Your task to perform on an android device: set the stopwatch Image 0: 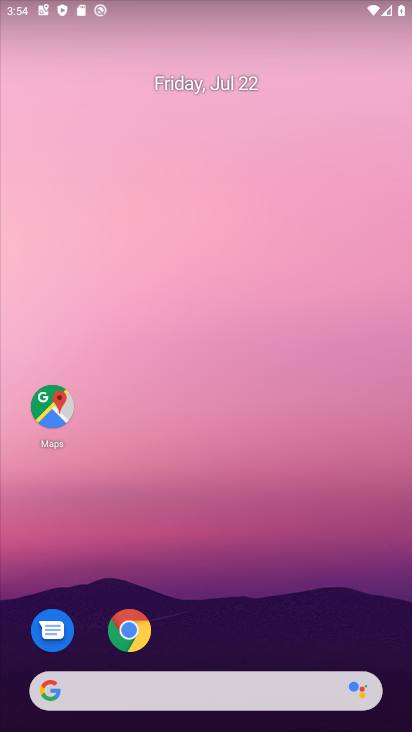
Step 0: drag from (228, 622) to (297, 17)
Your task to perform on an android device: set the stopwatch Image 1: 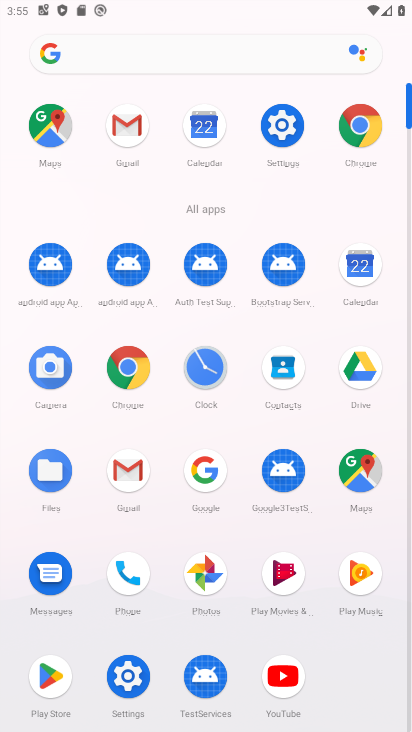
Step 1: click (208, 375)
Your task to perform on an android device: set the stopwatch Image 2: 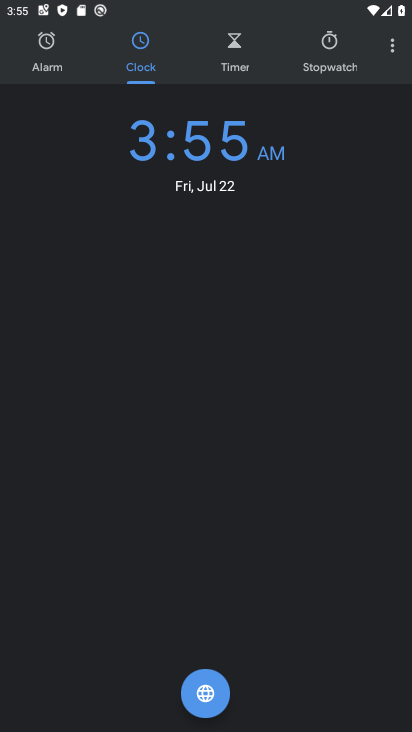
Step 2: click (332, 59)
Your task to perform on an android device: set the stopwatch Image 3: 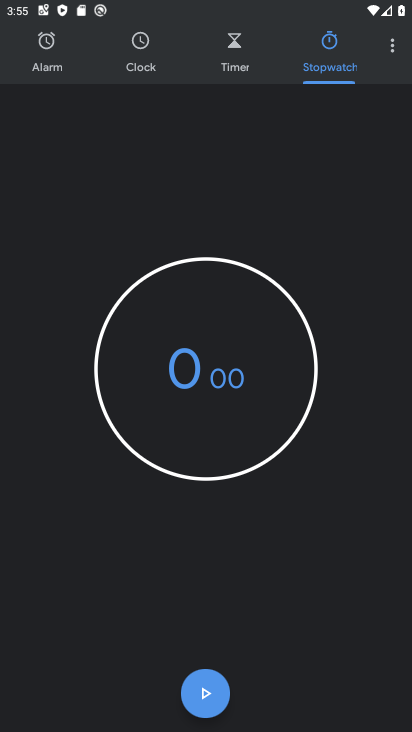
Step 3: click (222, 694)
Your task to perform on an android device: set the stopwatch Image 4: 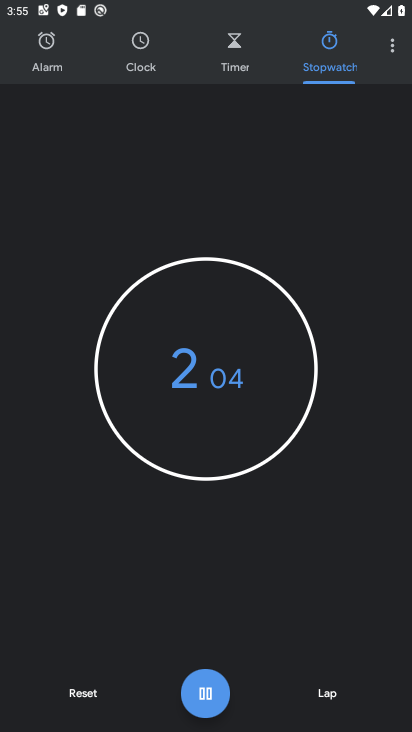
Step 4: task complete